Your task to perform on an android device: toggle location history Image 0: 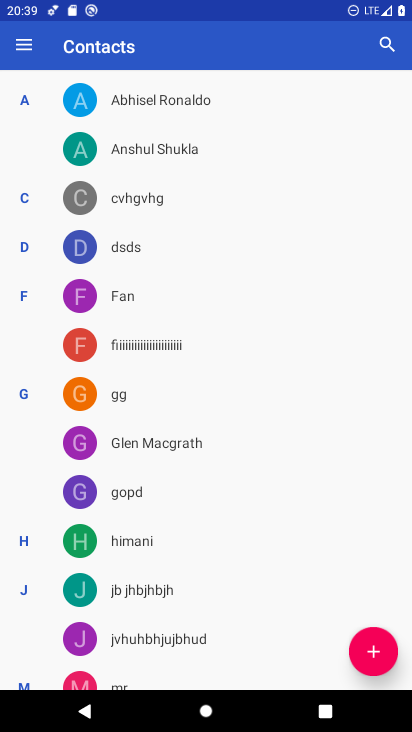
Step 0: press home button
Your task to perform on an android device: toggle location history Image 1: 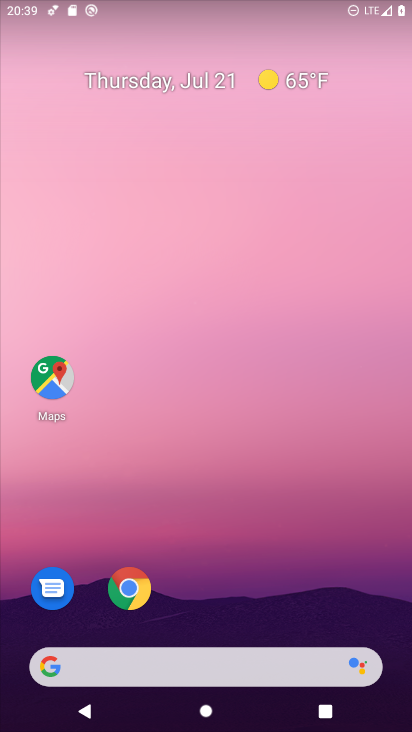
Step 1: drag from (170, 629) to (109, 80)
Your task to perform on an android device: toggle location history Image 2: 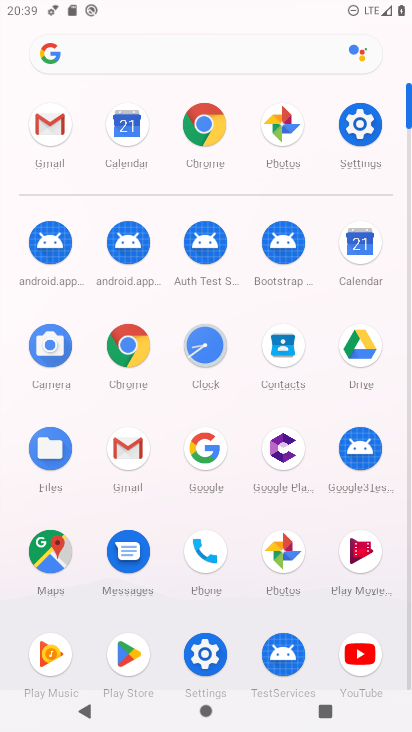
Step 2: click (351, 130)
Your task to perform on an android device: toggle location history Image 3: 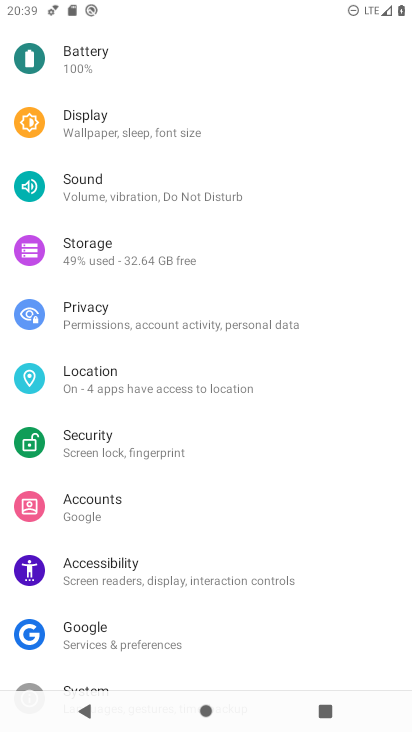
Step 3: click (87, 376)
Your task to perform on an android device: toggle location history Image 4: 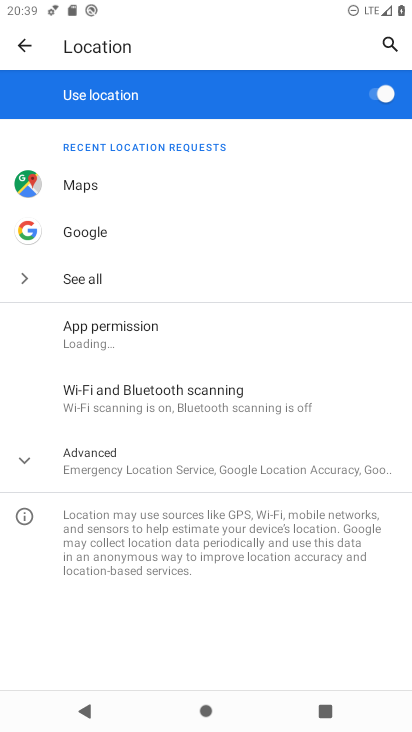
Step 4: click (144, 390)
Your task to perform on an android device: toggle location history Image 5: 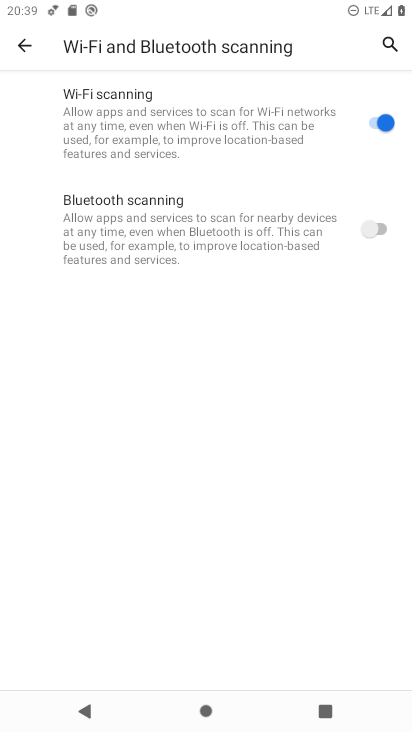
Step 5: click (19, 43)
Your task to perform on an android device: toggle location history Image 6: 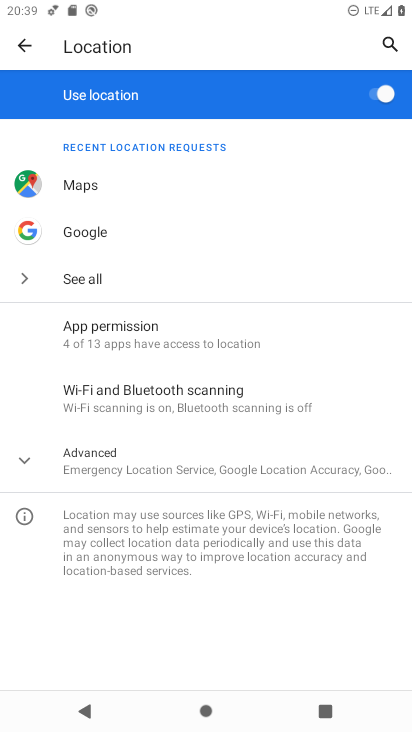
Step 6: click (150, 476)
Your task to perform on an android device: toggle location history Image 7: 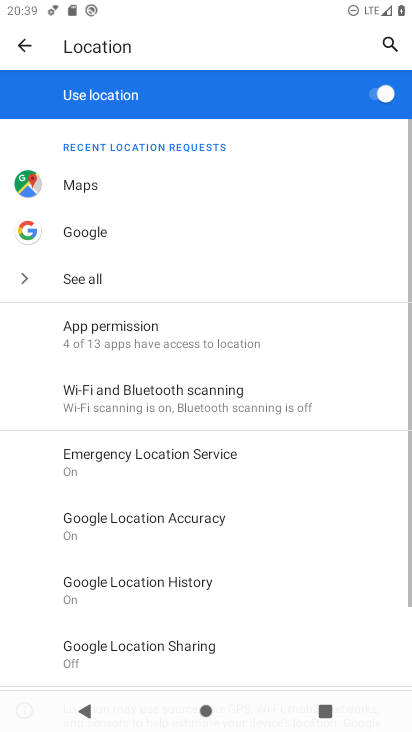
Step 7: click (188, 585)
Your task to perform on an android device: toggle location history Image 8: 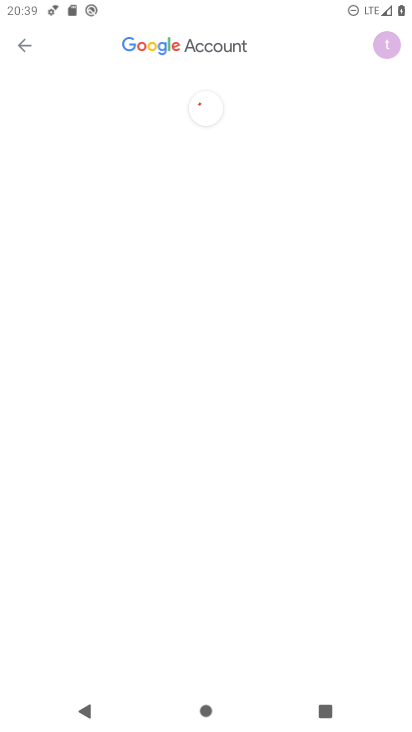
Step 8: task complete